Your task to perform on an android device: Search for Mexican restaurants on Maps Image 0: 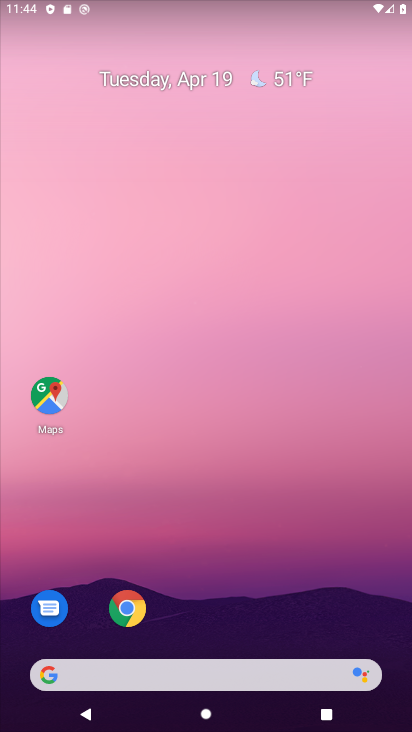
Step 0: drag from (181, 294) to (227, 98)
Your task to perform on an android device: Search for Mexican restaurants on Maps Image 1: 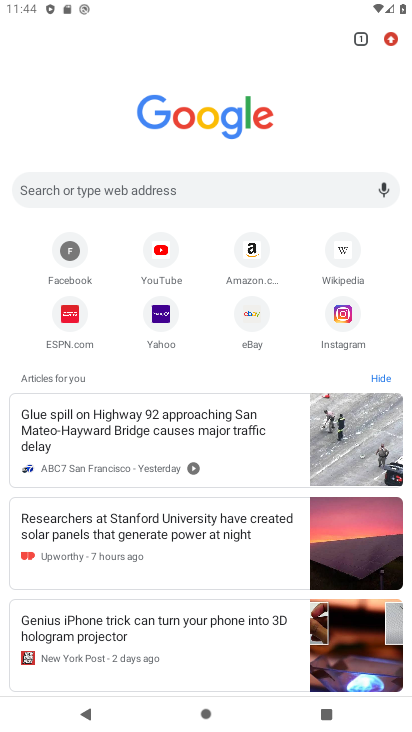
Step 1: press home button
Your task to perform on an android device: Search for Mexican restaurants on Maps Image 2: 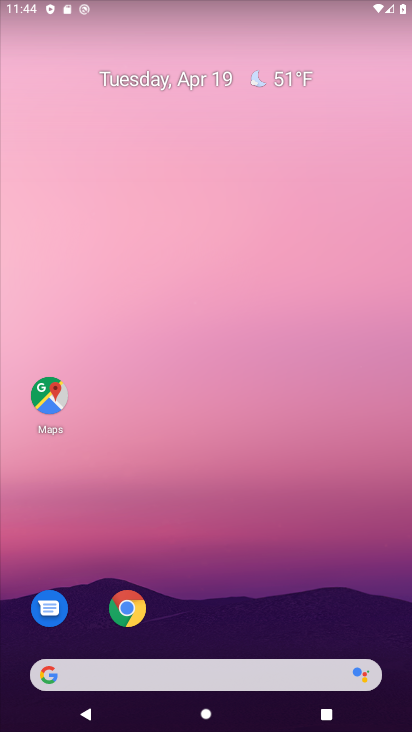
Step 2: click (58, 396)
Your task to perform on an android device: Search for Mexican restaurants on Maps Image 3: 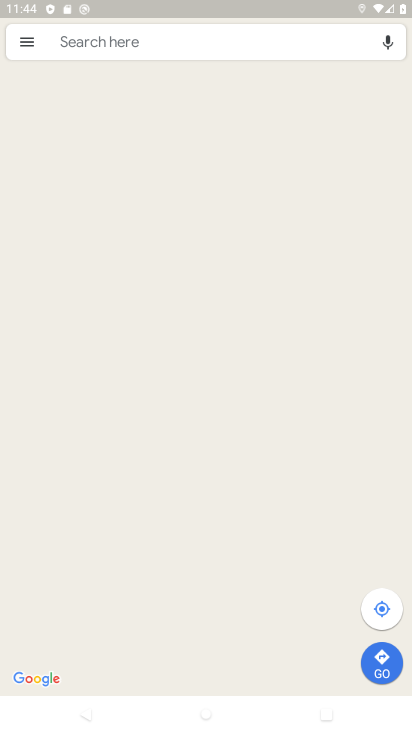
Step 3: click (176, 48)
Your task to perform on an android device: Search for Mexican restaurants on Maps Image 4: 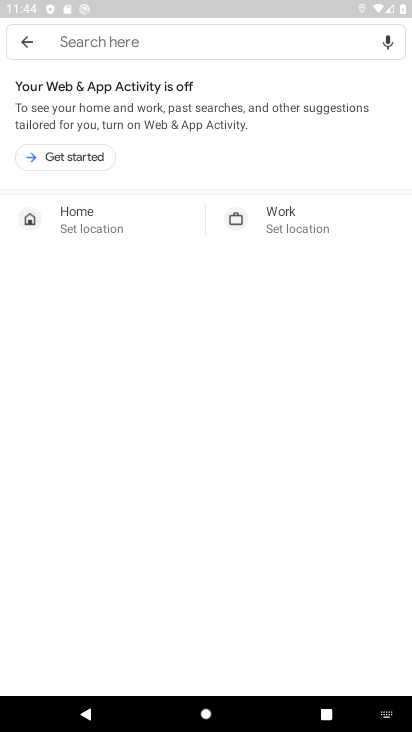
Step 4: click (50, 150)
Your task to perform on an android device: Search for Mexican restaurants on Maps Image 5: 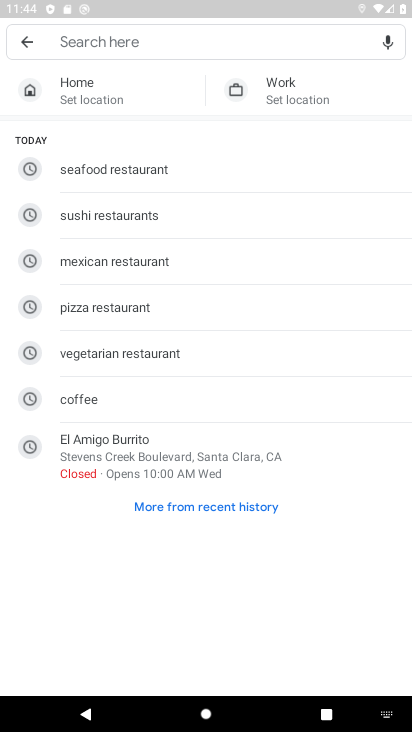
Step 5: click (114, 261)
Your task to perform on an android device: Search for Mexican restaurants on Maps Image 6: 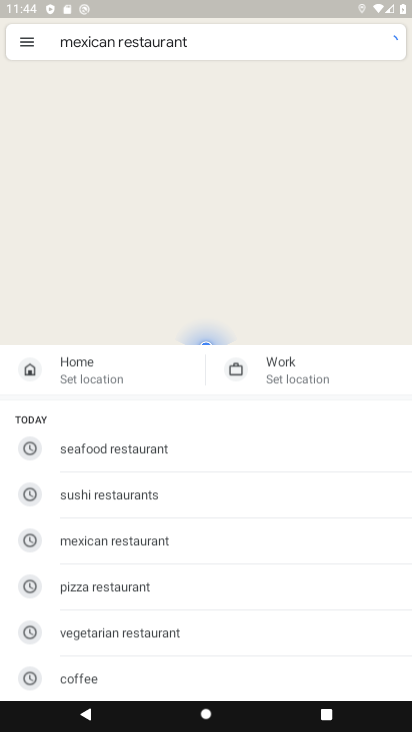
Step 6: task complete